Your task to perform on an android device: Open Google Chrome Image 0: 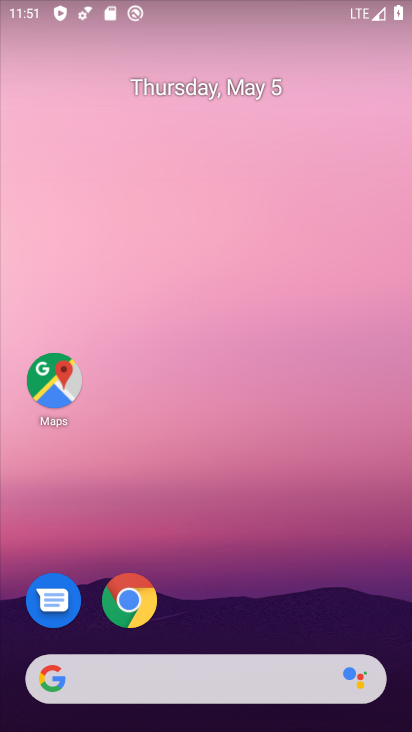
Step 0: click (138, 604)
Your task to perform on an android device: Open Google Chrome Image 1: 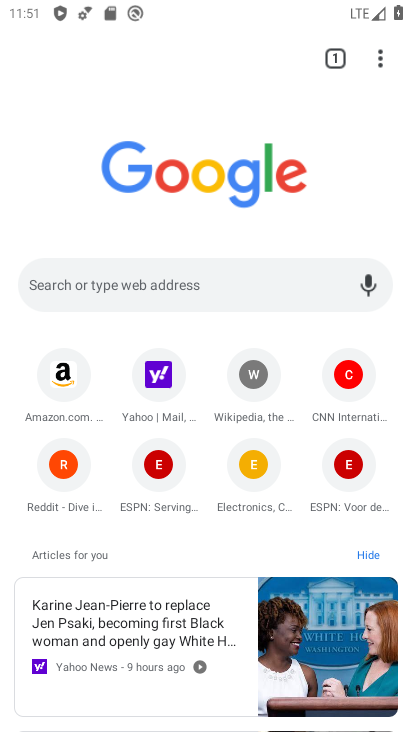
Step 1: task complete